Your task to perform on an android device: Go to notification settings Image 0: 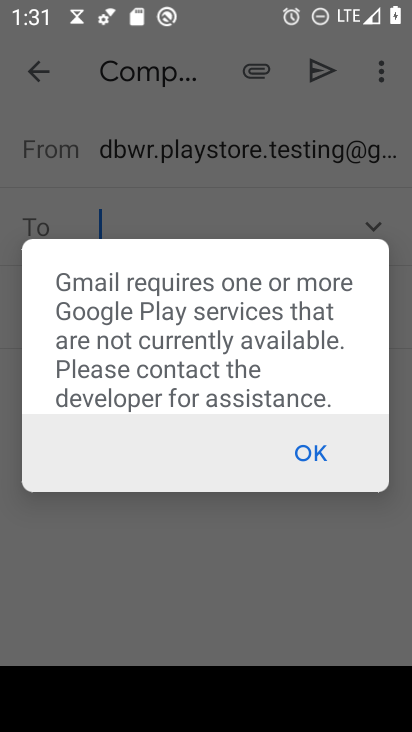
Step 0: press home button
Your task to perform on an android device: Go to notification settings Image 1: 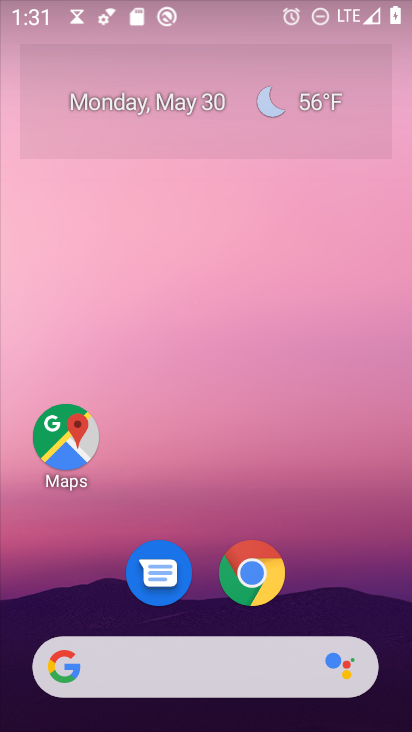
Step 1: drag from (271, 685) to (326, 37)
Your task to perform on an android device: Go to notification settings Image 2: 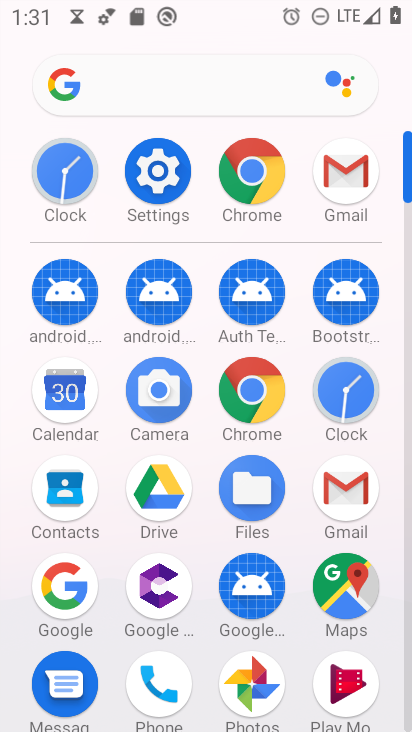
Step 2: click (163, 177)
Your task to perform on an android device: Go to notification settings Image 3: 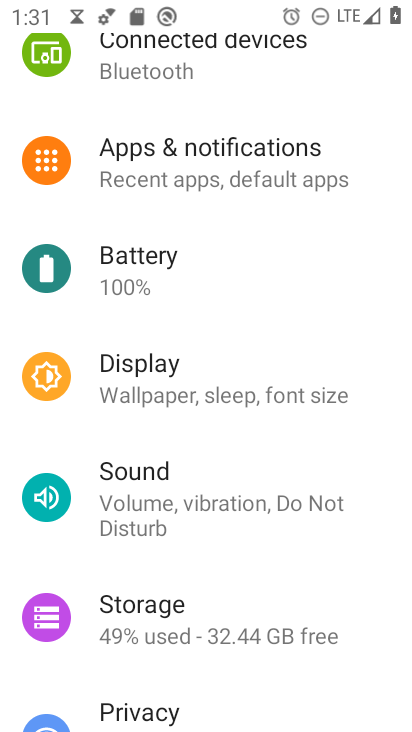
Step 3: click (251, 176)
Your task to perform on an android device: Go to notification settings Image 4: 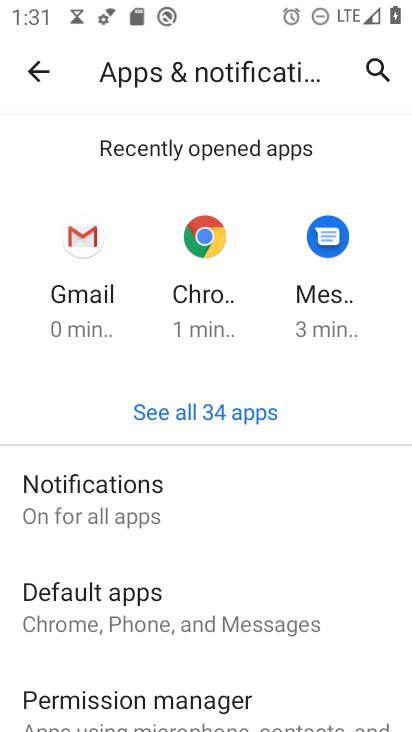
Step 4: task complete